Your task to perform on an android device: find which apps use the phone's location Image 0: 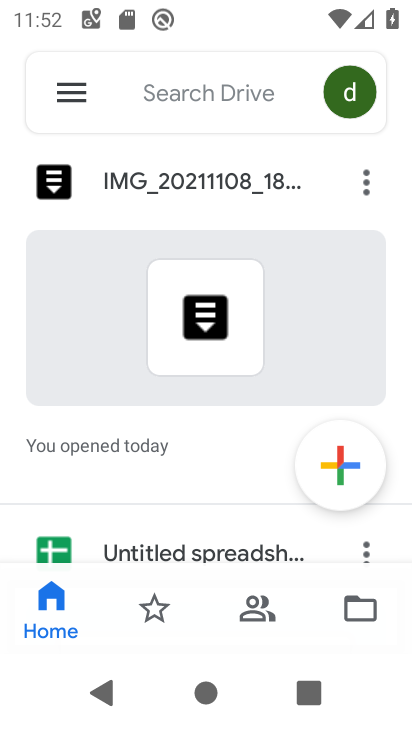
Step 0: press home button
Your task to perform on an android device: find which apps use the phone's location Image 1: 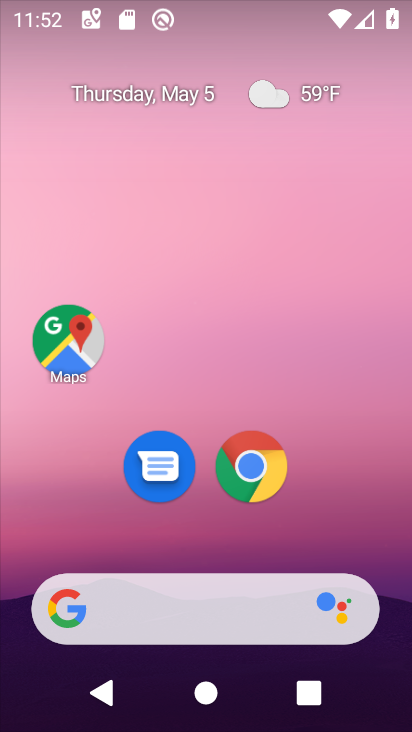
Step 1: drag from (332, 479) to (296, 67)
Your task to perform on an android device: find which apps use the phone's location Image 2: 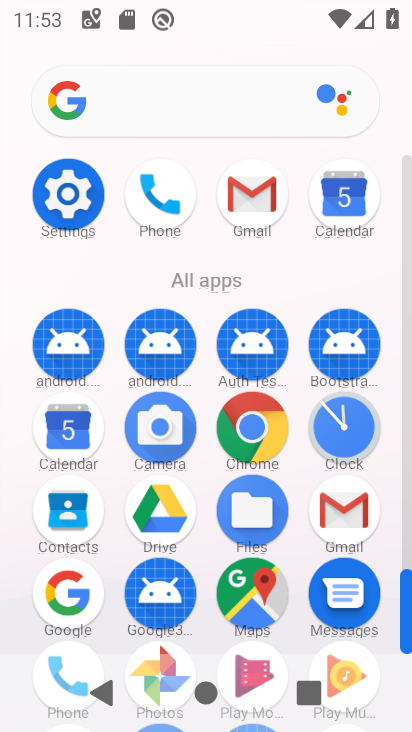
Step 2: click (58, 199)
Your task to perform on an android device: find which apps use the phone's location Image 3: 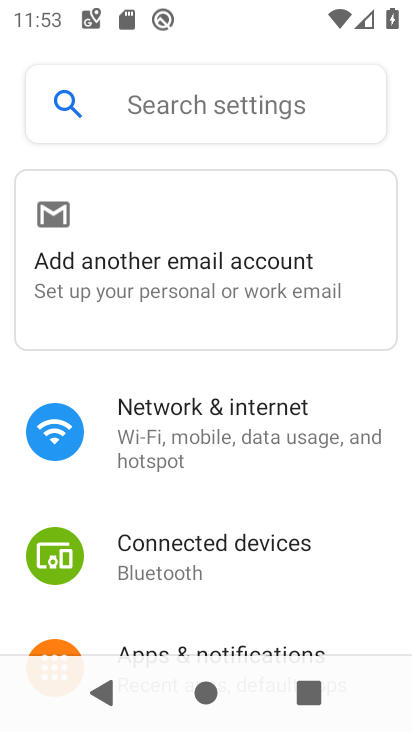
Step 3: drag from (306, 618) to (271, 216)
Your task to perform on an android device: find which apps use the phone's location Image 4: 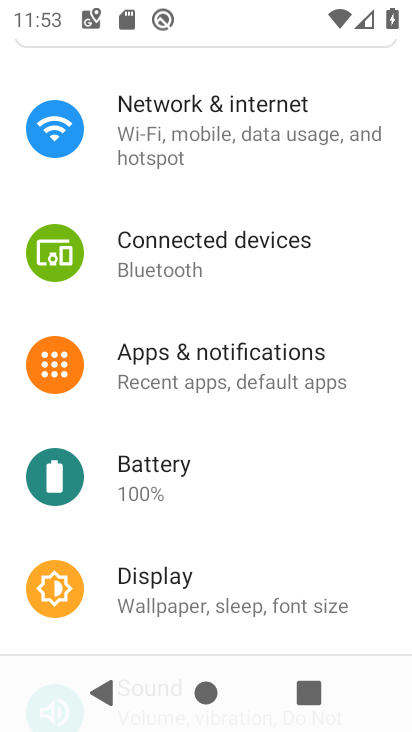
Step 4: drag from (312, 515) to (250, 115)
Your task to perform on an android device: find which apps use the phone's location Image 5: 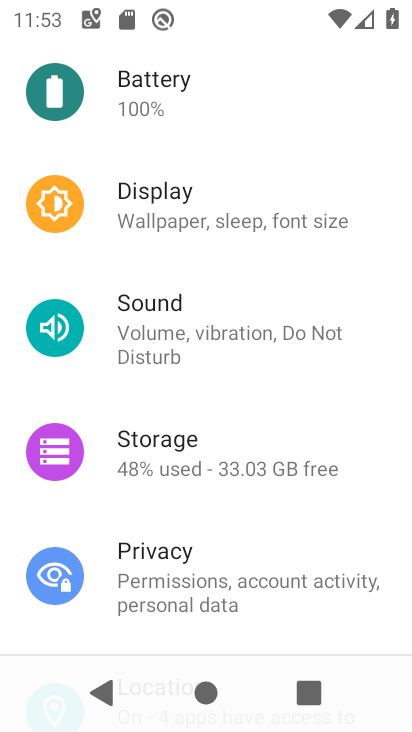
Step 5: drag from (310, 617) to (267, 243)
Your task to perform on an android device: find which apps use the phone's location Image 6: 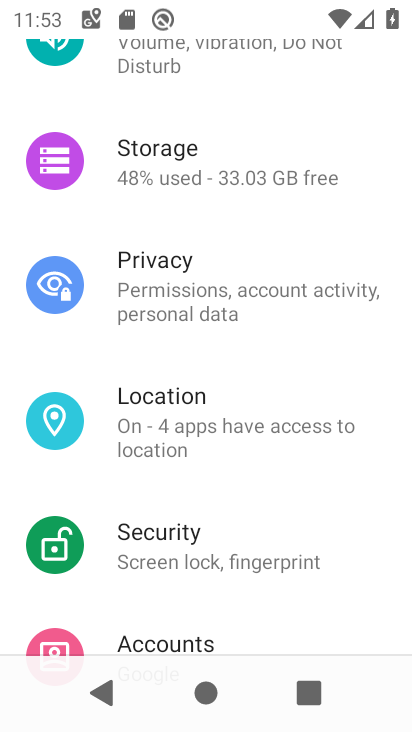
Step 6: click (293, 427)
Your task to perform on an android device: find which apps use the phone's location Image 7: 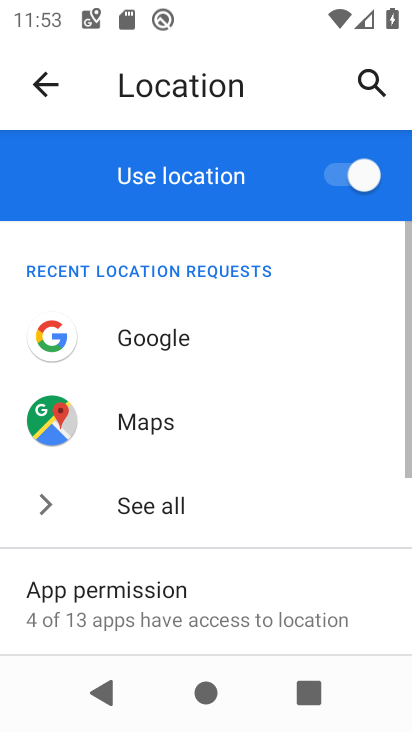
Step 7: drag from (307, 599) to (282, 303)
Your task to perform on an android device: find which apps use the phone's location Image 8: 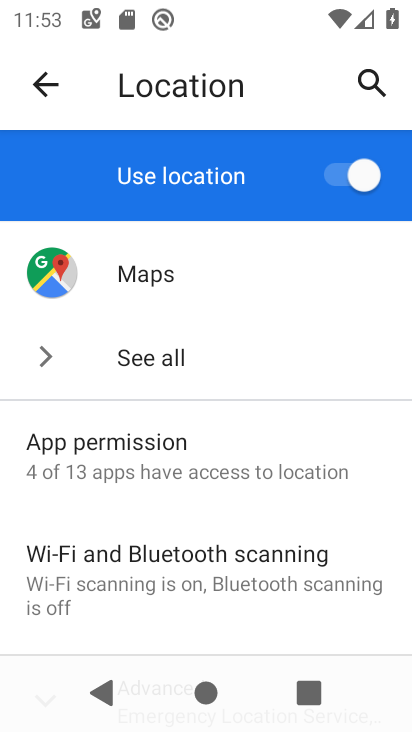
Step 8: click (285, 476)
Your task to perform on an android device: find which apps use the phone's location Image 9: 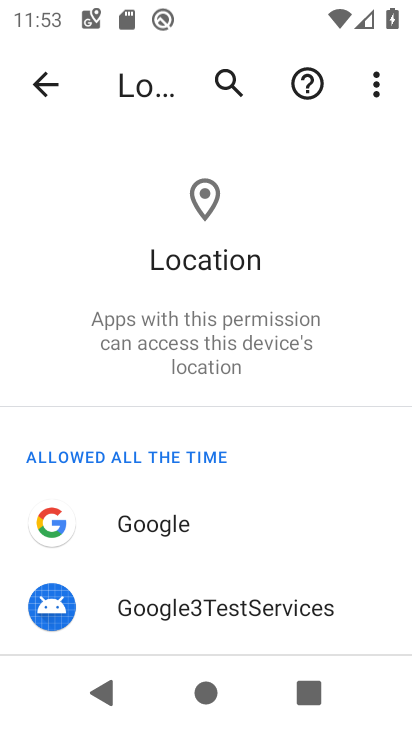
Step 9: task complete